Your task to perform on an android device: Go to sound settings Image 0: 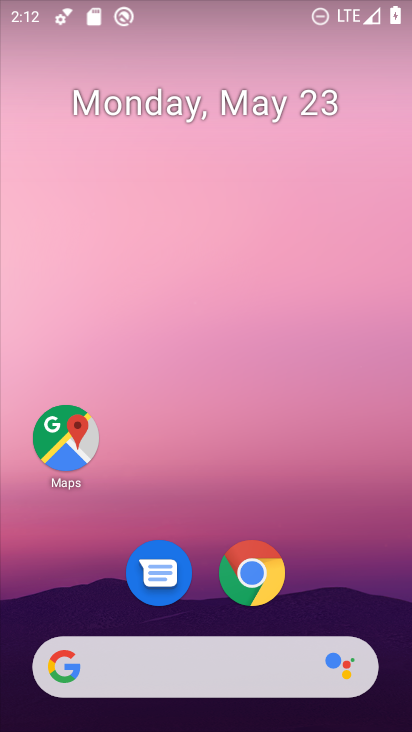
Step 0: drag from (309, 592) to (233, 127)
Your task to perform on an android device: Go to sound settings Image 1: 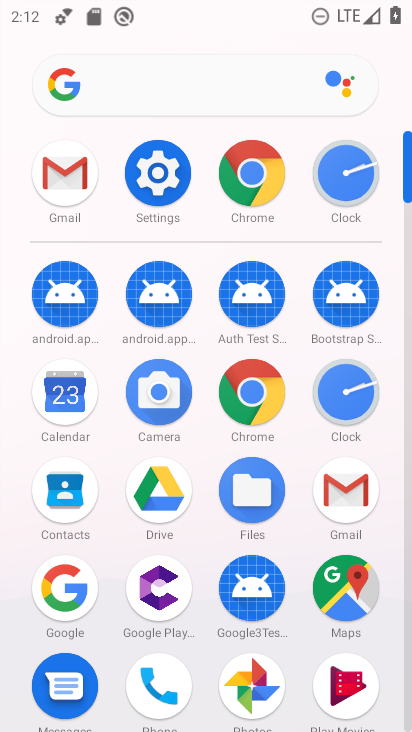
Step 1: click (172, 171)
Your task to perform on an android device: Go to sound settings Image 2: 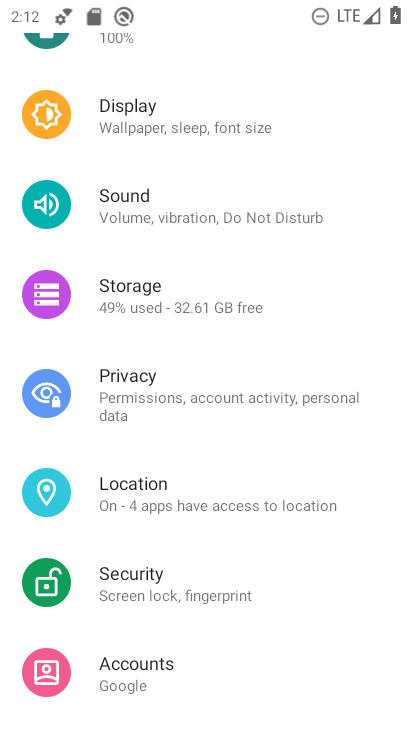
Step 2: click (187, 216)
Your task to perform on an android device: Go to sound settings Image 3: 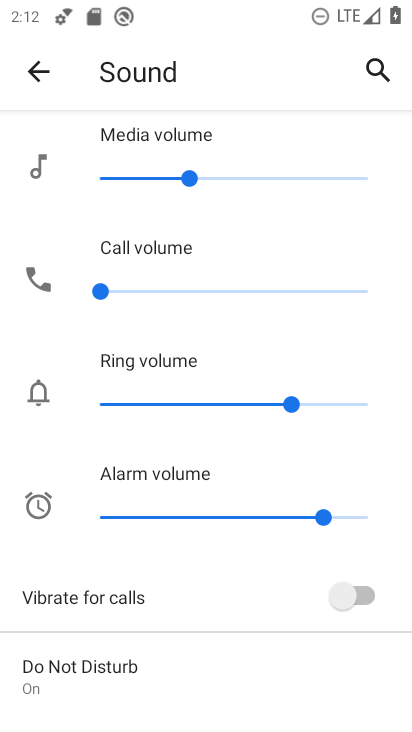
Step 3: task complete